Your task to perform on an android device: Show me productivity apps on the Play Store Image 0: 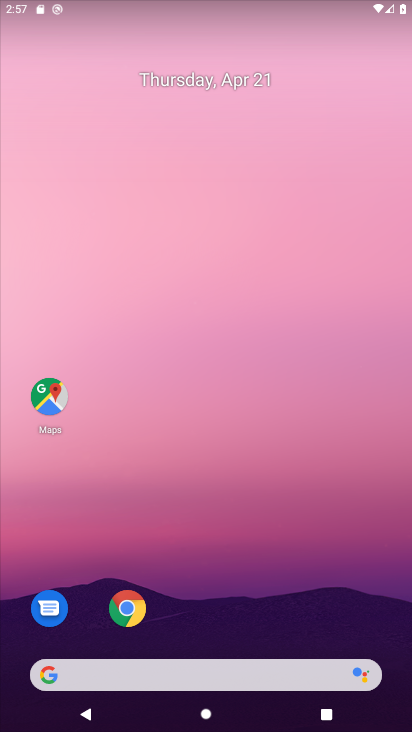
Step 0: click (232, 181)
Your task to perform on an android device: Show me productivity apps on the Play Store Image 1: 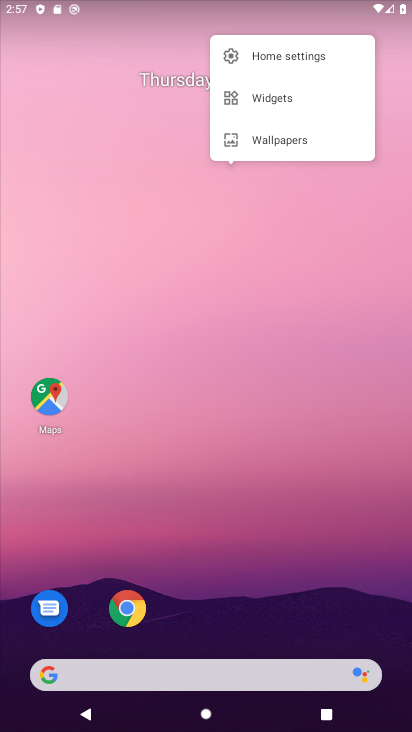
Step 1: click (179, 237)
Your task to perform on an android device: Show me productivity apps on the Play Store Image 2: 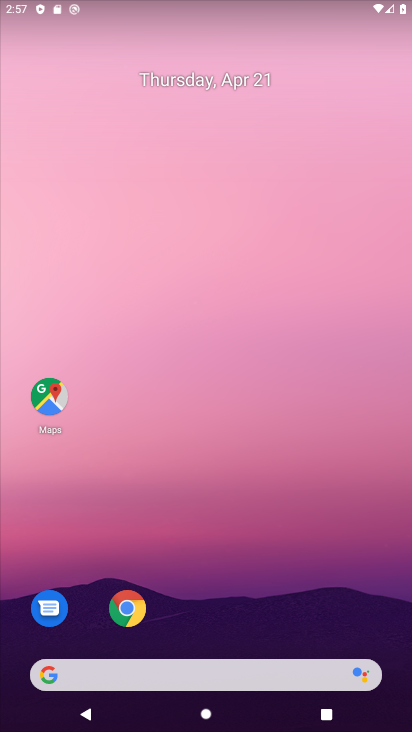
Step 2: drag from (238, 594) to (260, 180)
Your task to perform on an android device: Show me productivity apps on the Play Store Image 3: 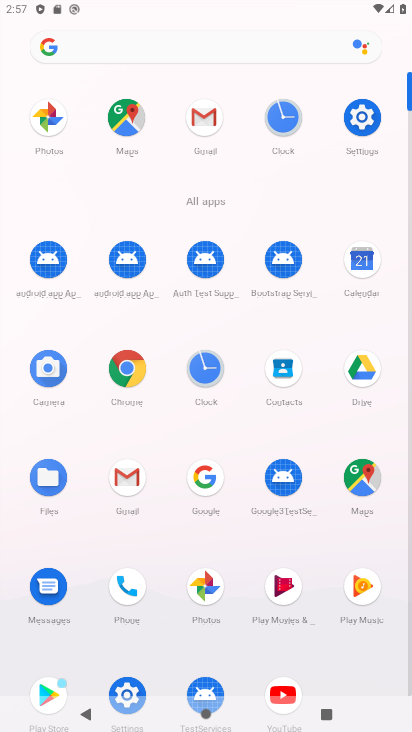
Step 3: drag from (221, 505) to (221, 253)
Your task to perform on an android device: Show me productivity apps on the Play Store Image 4: 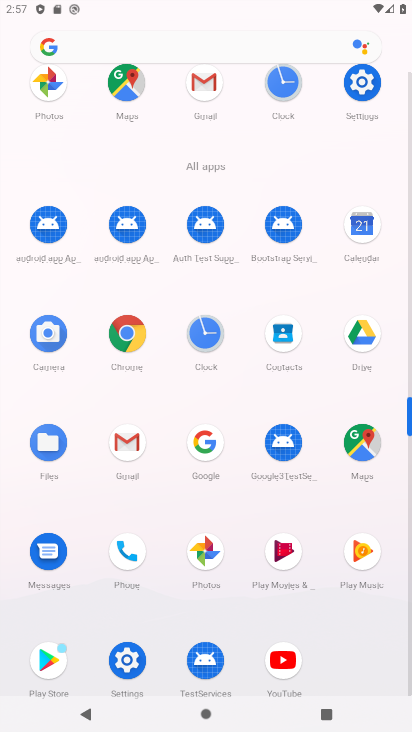
Step 4: drag from (241, 317) to (260, 648)
Your task to perform on an android device: Show me productivity apps on the Play Store Image 5: 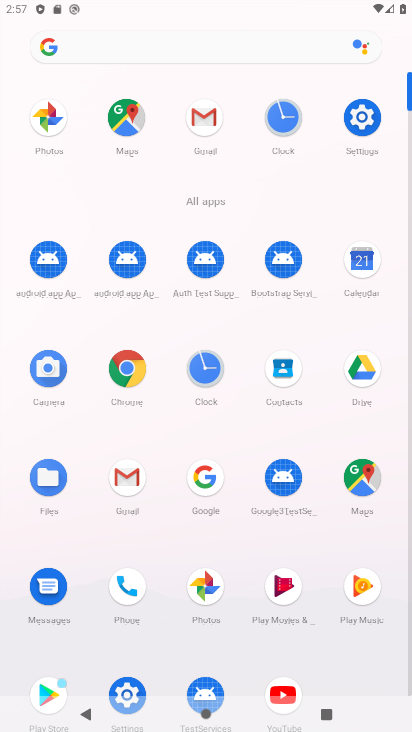
Step 5: drag from (146, 420) to (165, 208)
Your task to perform on an android device: Show me productivity apps on the Play Store Image 6: 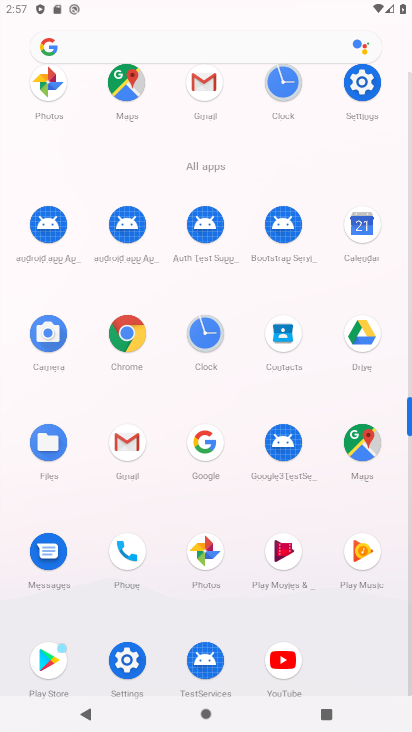
Step 6: click (57, 664)
Your task to perform on an android device: Show me productivity apps on the Play Store Image 7: 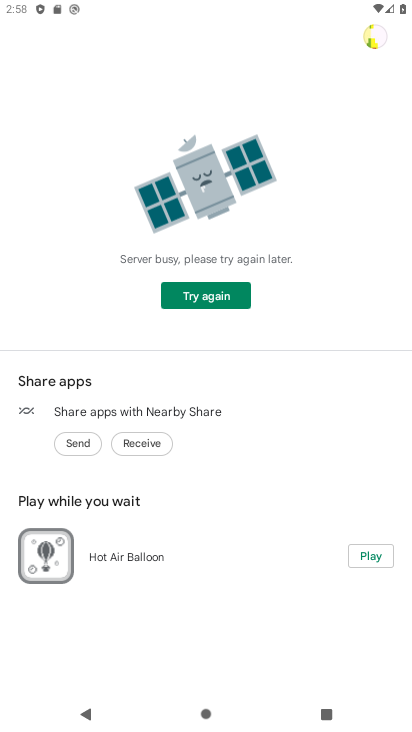
Step 7: drag from (216, 620) to (159, 264)
Your task to perform on an android device: Show me productivity apps on the Play Store Image 8: 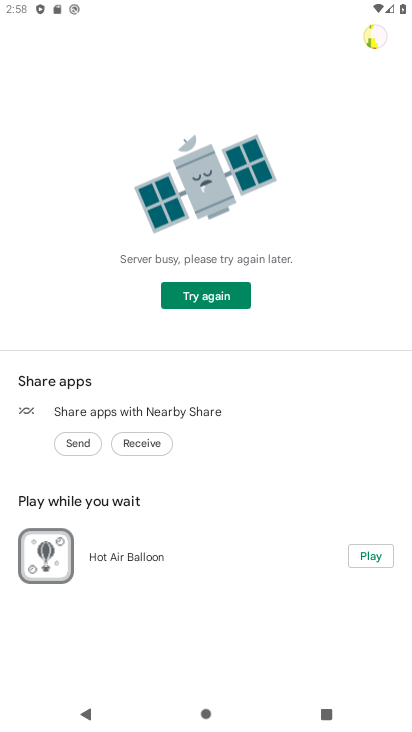
Step 8: click (215, 291)
Your task to perform on an android device: Show me productivity apps on the Play Store Image 9: 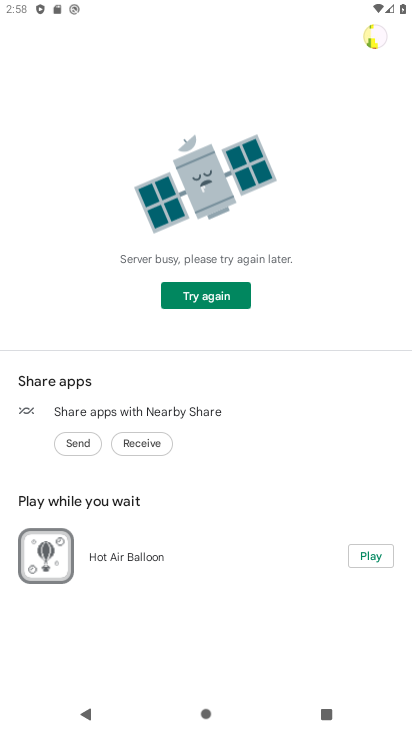
Step 9: task complete